Your task to perform on an android device: open chrome and create a bookmark for the current page Image 0: 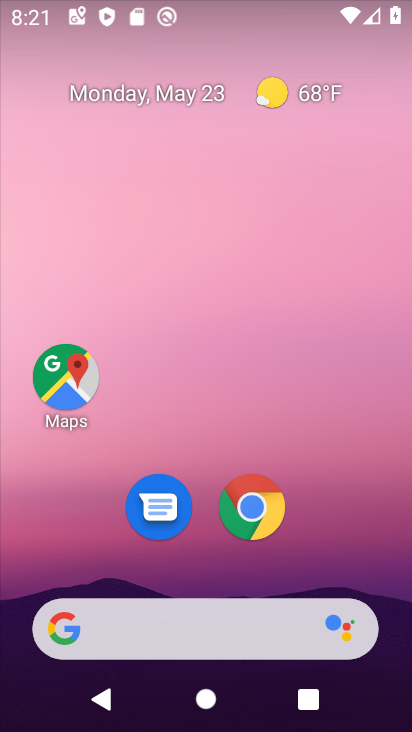
Step 0: click (247, 514)
Your task to perform on an android device: open chrome and create a bookmark for the current page Image 1: 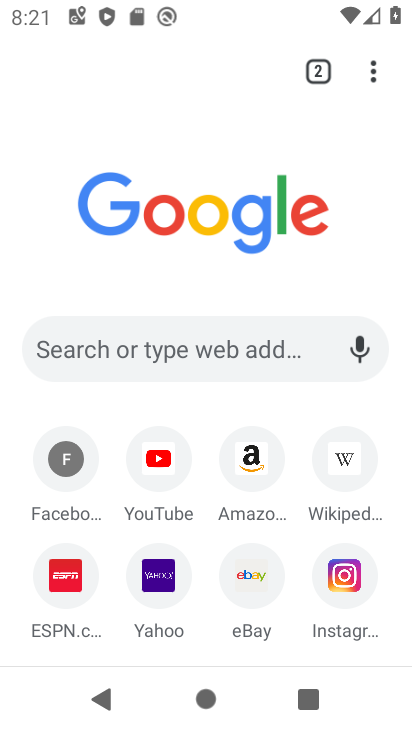
Step 1: click (370, 67)
Your task to perform on an android device: open chrome and create a bookmark for the current page Image 2: 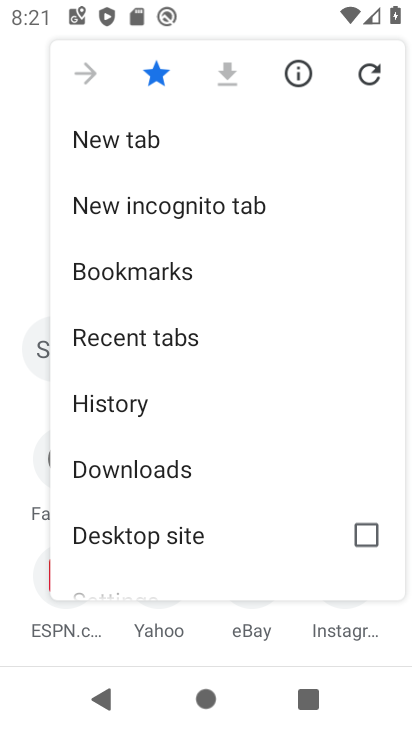
Step 2: click (155, 70)
Your task to perform on an android device: open chrome and create a bookmark for the current page Image 3: 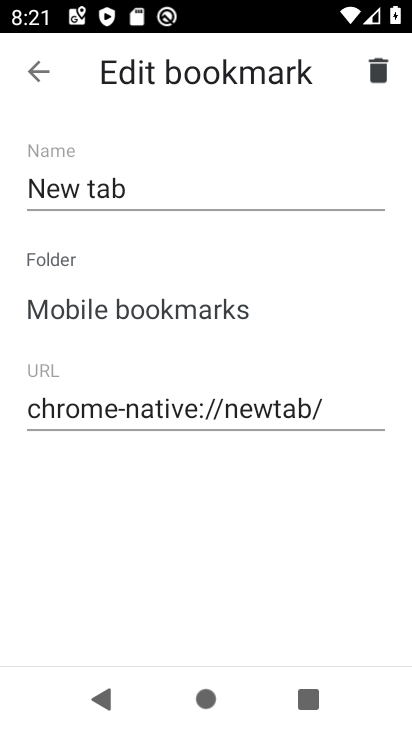
Step 3: task complete